Your task to perform on an android device: Open calendar and show me the second week of next month Image 0: 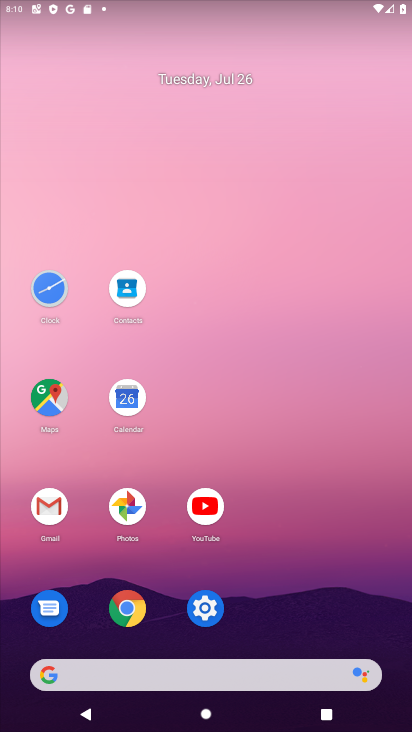
Step 0: click (121, 397)
Your task to perform on an android device: Open calendar and show me the second week of next month Image 1: 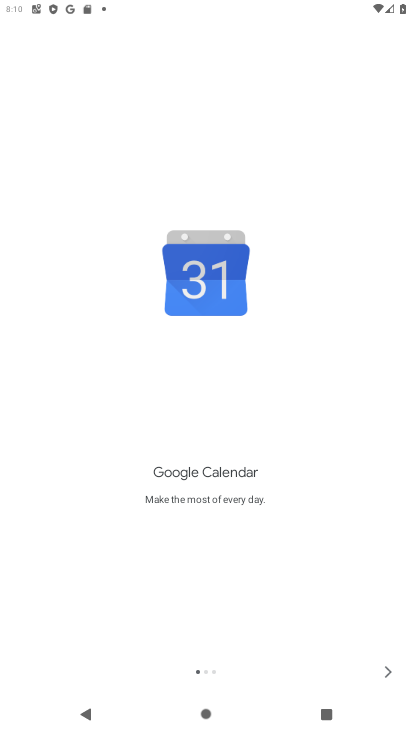
Step 1: click (388, 673)
Your task to perform on an android device: Open calendar and show me the second week of next month Image 2: 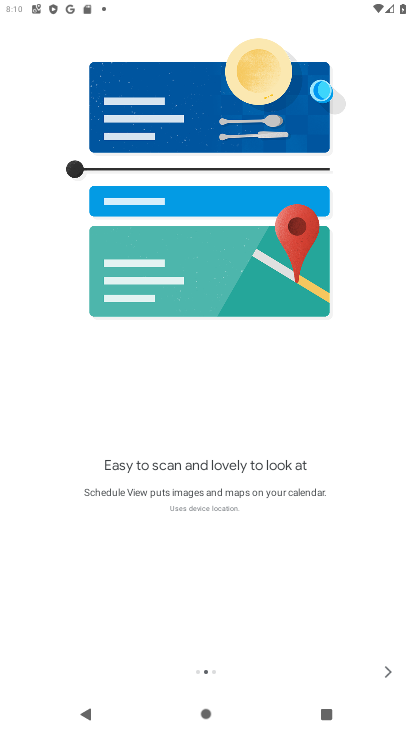
Step 2: click (388, 673)
Your task to perform on an android device: Open calendar and show me the second week of next month Image 3: 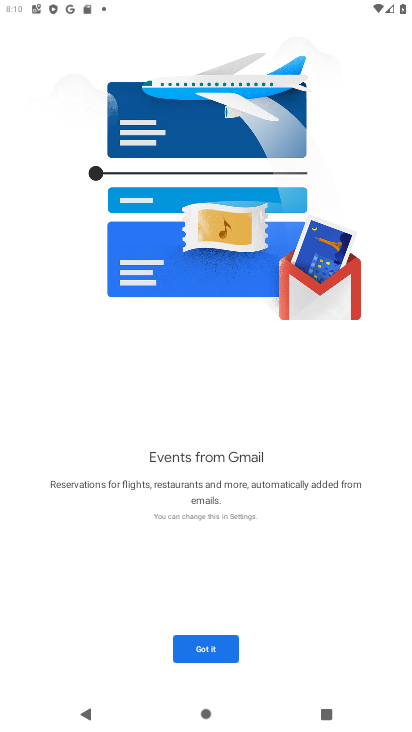
Step 3: click (197, 642)
Your task to perform on an android device: Open calendar and show me the second week of next month Image 4: 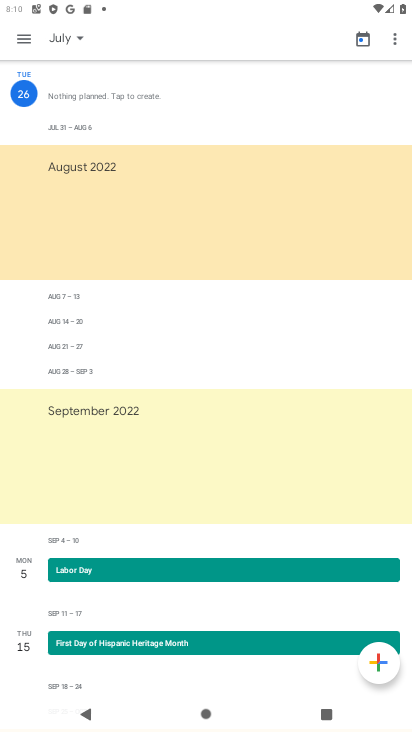
Step 4: click (24, 42)
Your task to perform on an android device: Open calendar and show me the second week of next month Image 5: 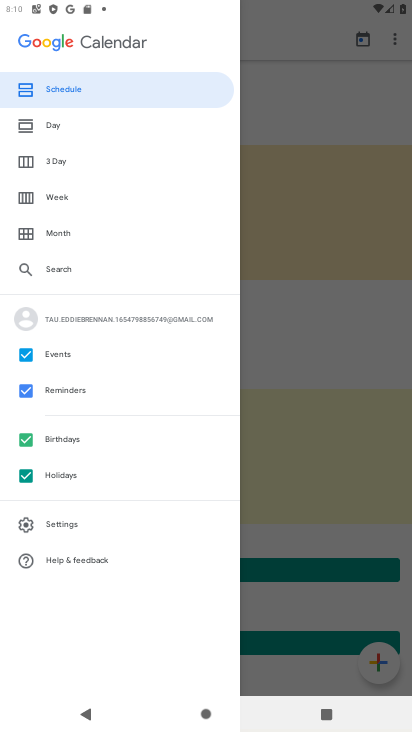
Step 5: click (54, 191)
Your task to perform on an android device: Open calendar and show me the second week of next month Image 6: 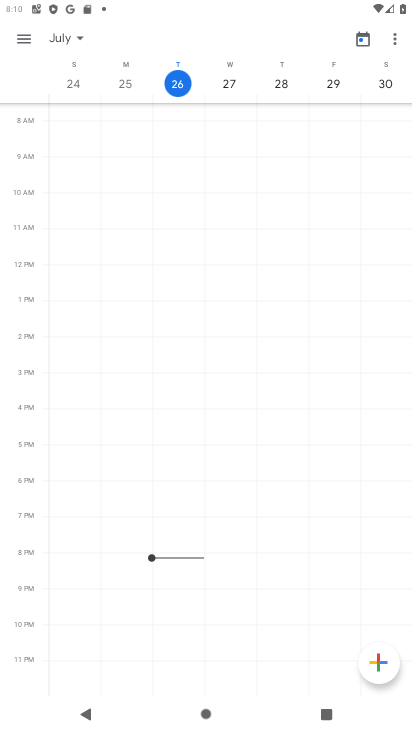
Step 6: click (71, 34)
Your task to perform on an android device: Open calendar and show me the second week of next month Image 7: 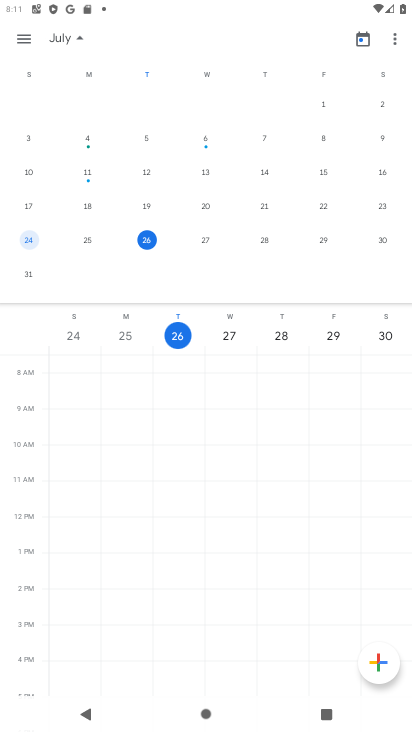
Step 7: drag from (391, 177) to (21, 132)
Your task to perform on an android device: Open calendar and show me the second week of next month Image 8: 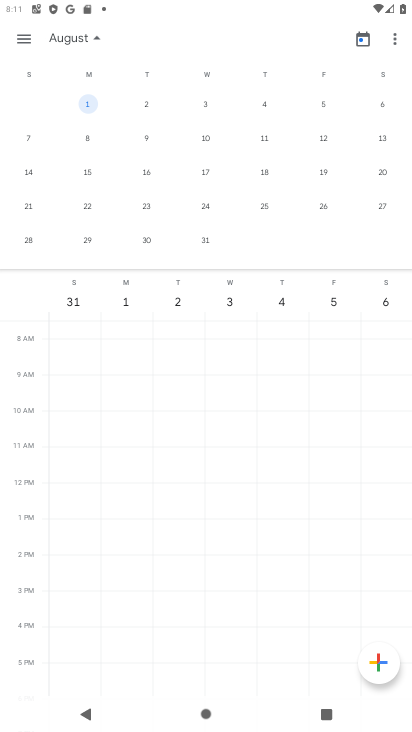
Step 8: click (89, 131)
Your task to perform on an android device: Open calendar and show me the second week of next month Image 9: 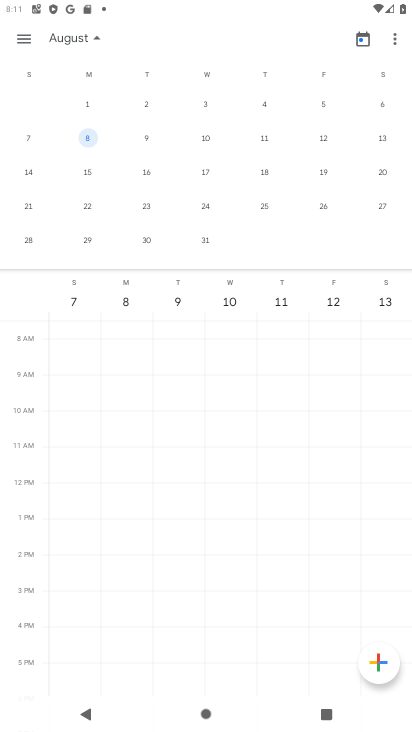
Step 9: task complete